Your task to perform on an android device: turn notification dots off Image 0: 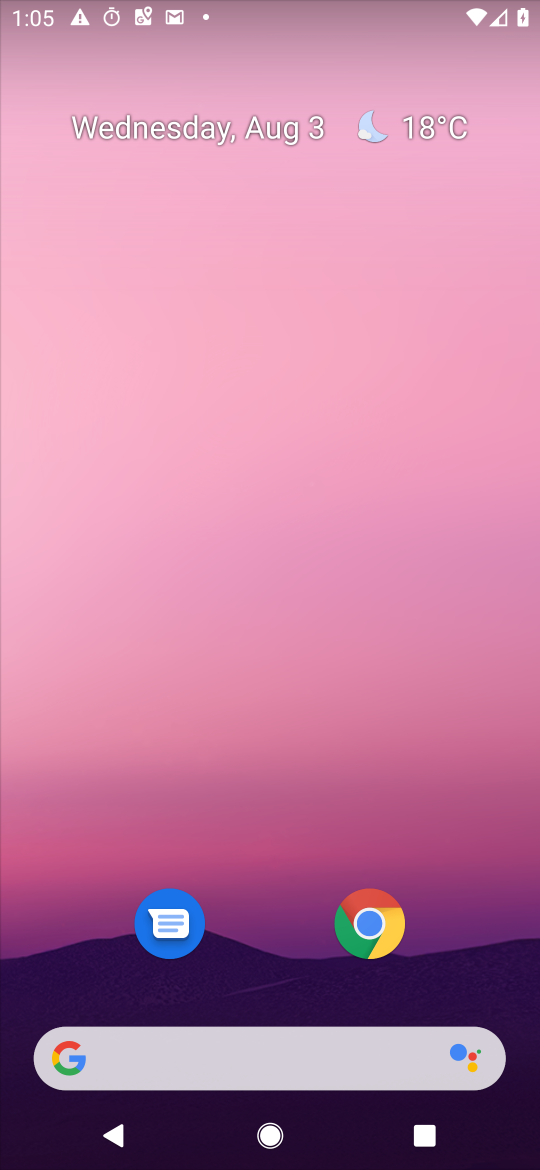
Step 0: drag from (335, 938) to (403, 414)
Your task to perform on an android device: turn notification dots off Image 1: 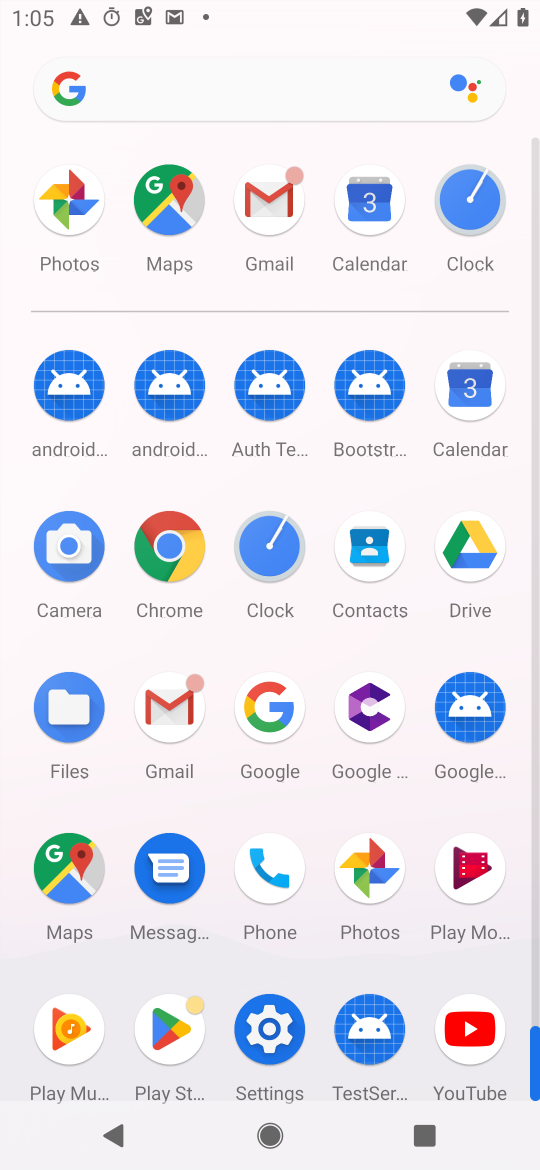
Step 1: drag from (332, 1012) to (279, 234)
Your task to perform on an android device: turn notification dots off Image 2: 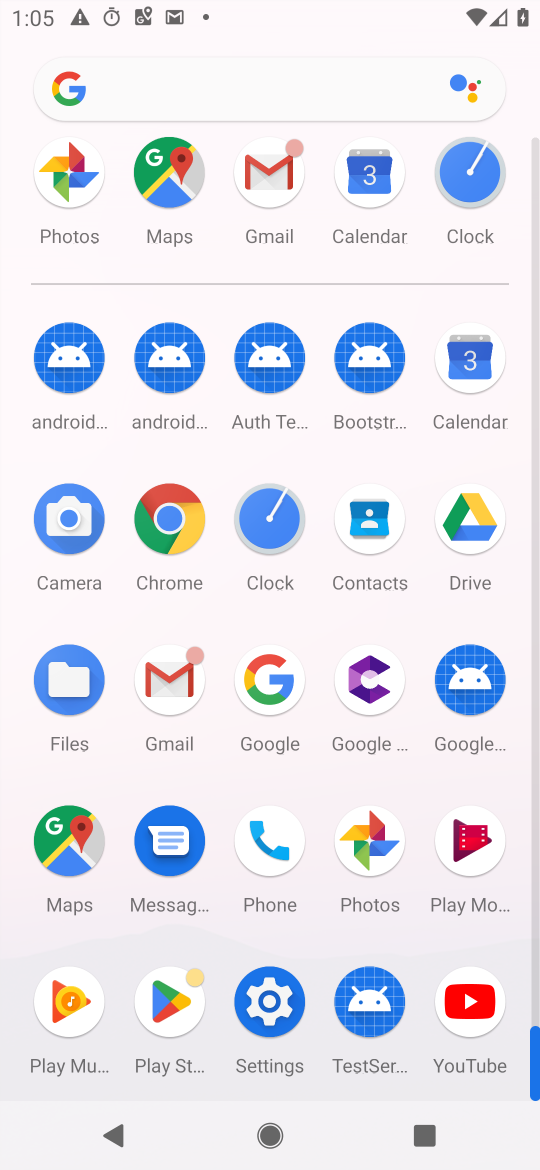
Step 2: drag from (305, 950) to (284, 317)
Your task to perform on an android device: turn notification dots off Image 3: 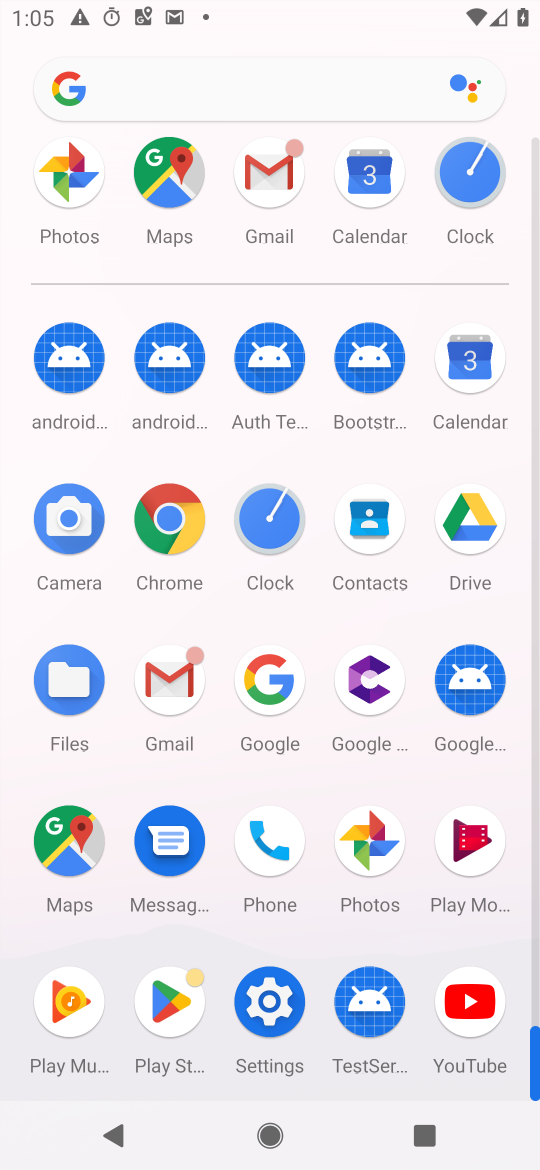
Step 3: drag from (331, 810) to (294, 429)
Your task to perform on an android device: turn notification dots off Image 4: 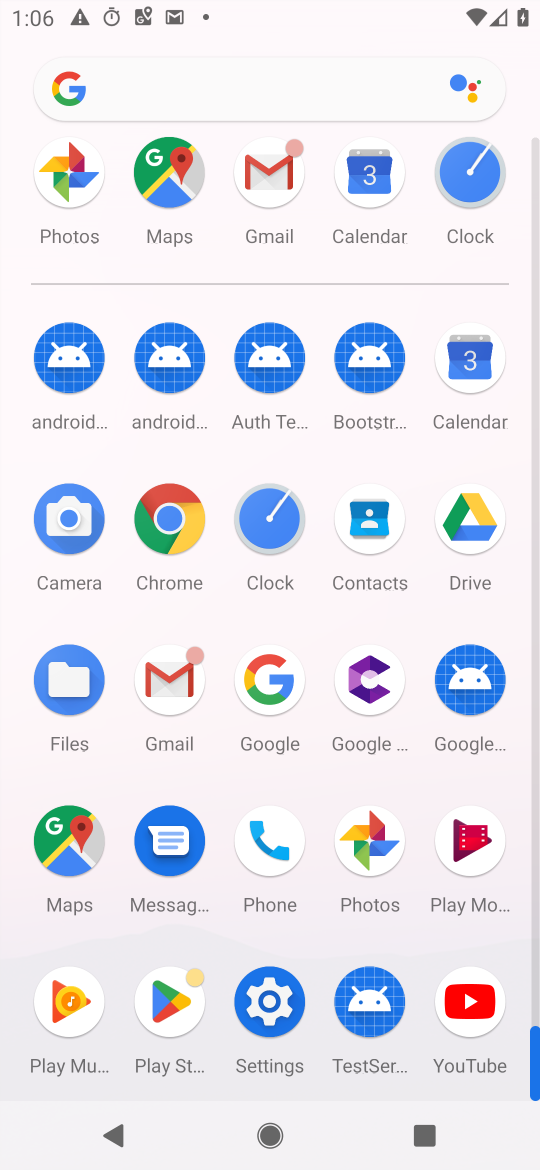
Step 4: click (277, 1011)
Your task to perform on an android device: turn notification dots off Image 5: 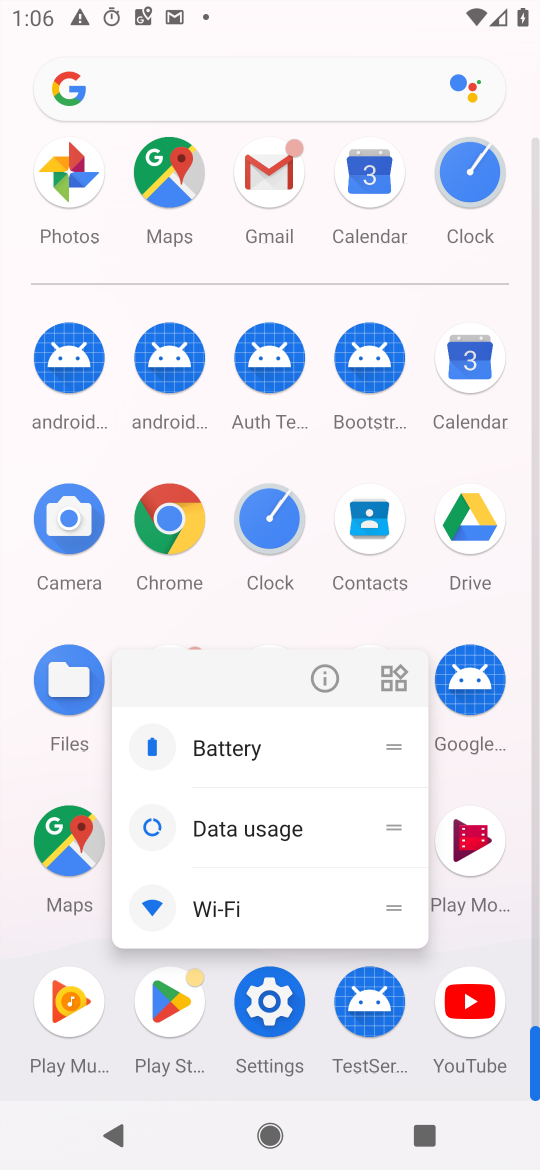
Step 5: click (313, 669)
Your task to perform on an android device: turn notification dots off Image 6: 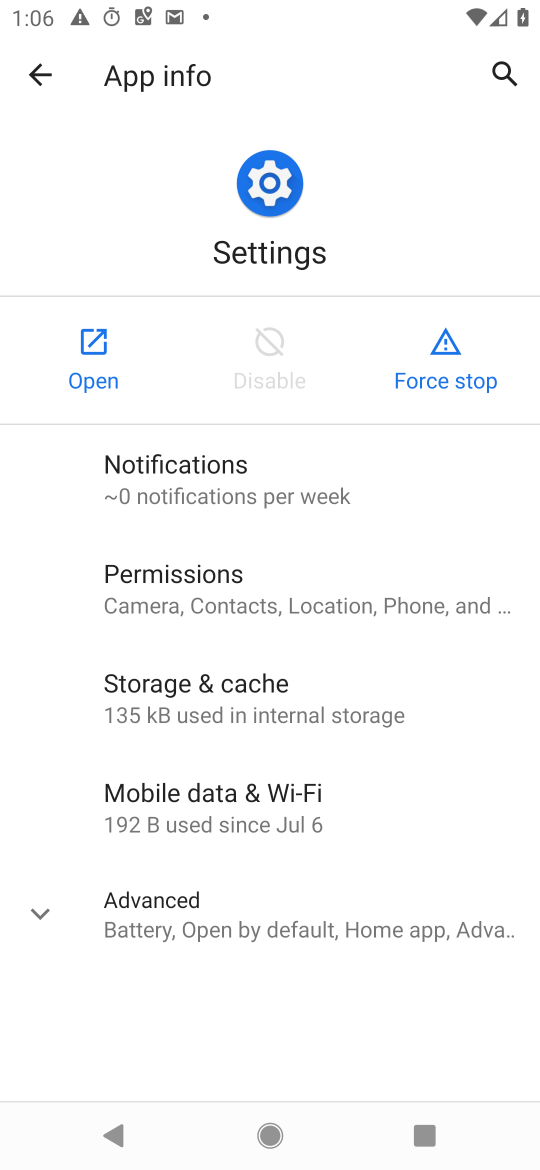
Step 6: click (97, 378)
Your task to perform on an android device: turn notification dots off Image 7: 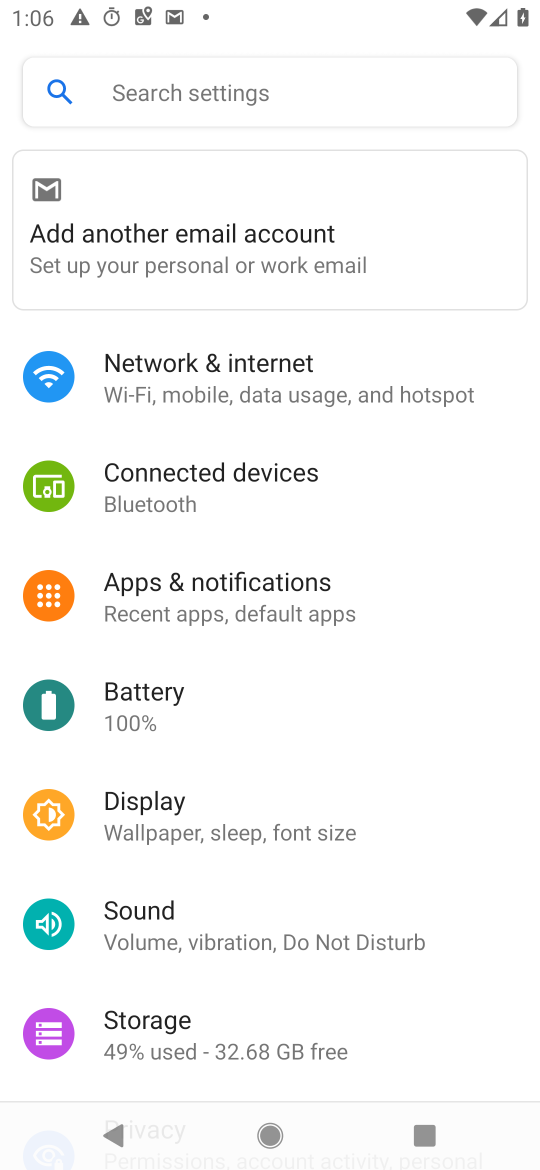
Step 7: drag from (274, 198) to (419, 121)
Your task to perform on an android device: turn notification dots off Image 8: 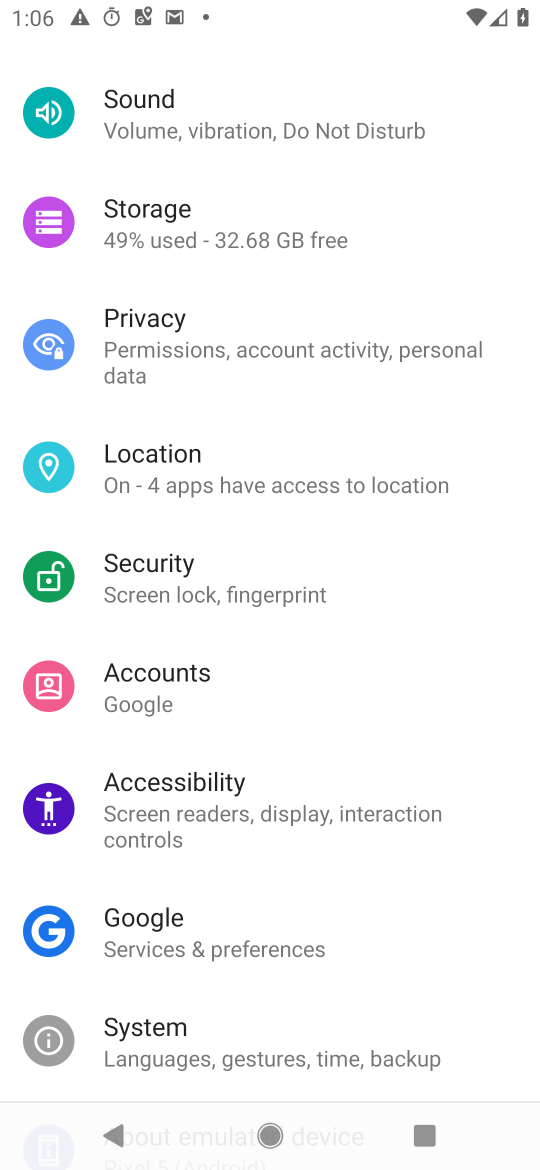
Step 8: drag from (317, 310) to (340, 1155)
Your task to perform on an android device: turn notification dots off Image 9: 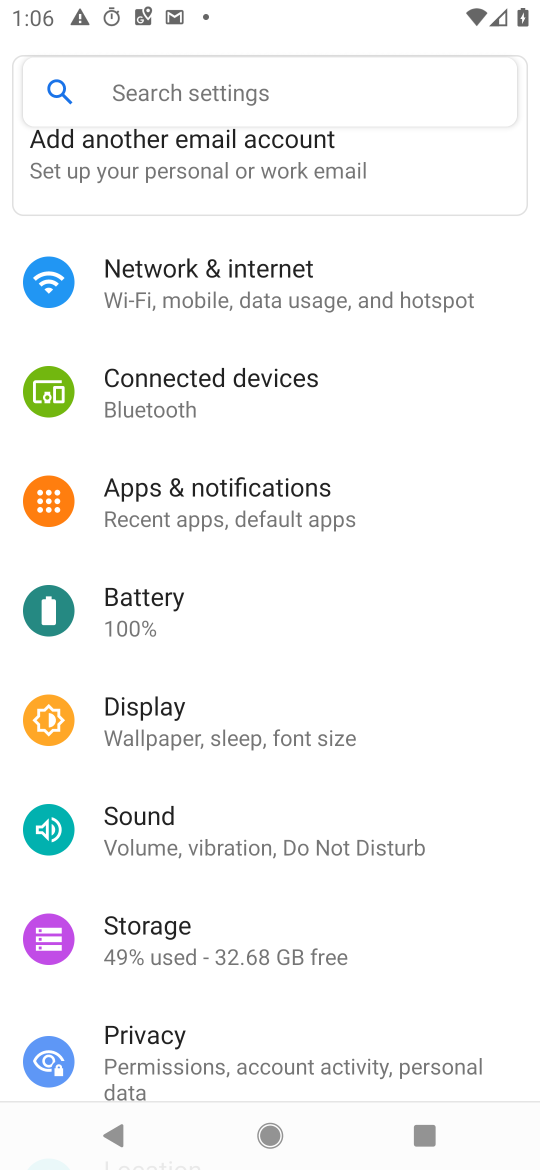
Step 9: click (290, 494)
Your task to perform on an android device: turn notification dots off Image 10: 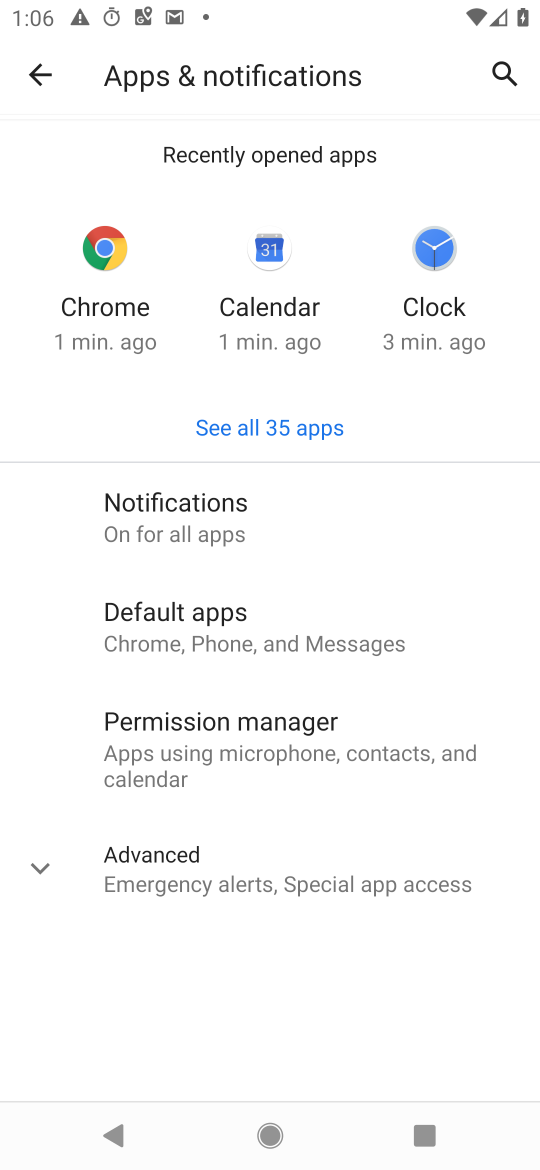
Step 10: drag from (305, 821) to (305, 530)
Your task to perform on an android device: turn notification dots off Image 11: 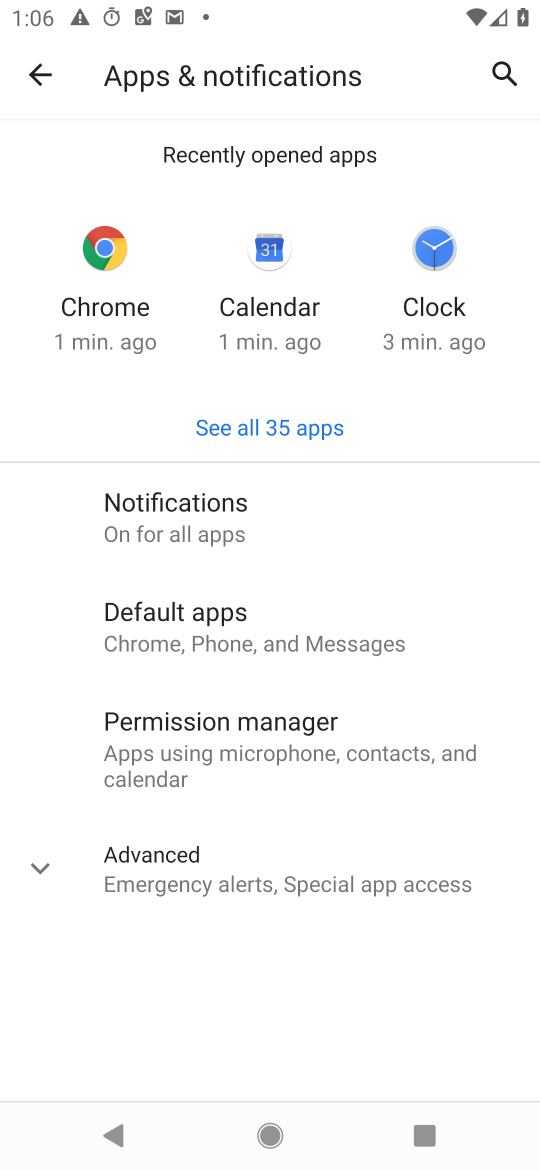
Step 11: click (222, 873)
Your task to perform on an android device: turn notification dots off Image 12: 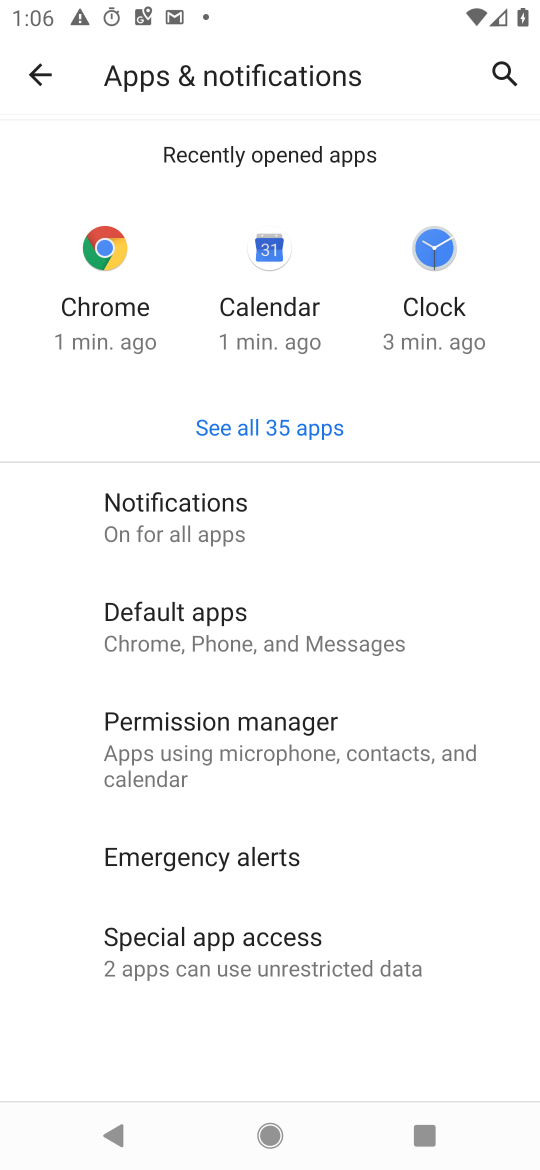
Step 12: drag from (278, 718) to (409, 1157)
Your task to perform on an android device: turn notification dots off Image 13: 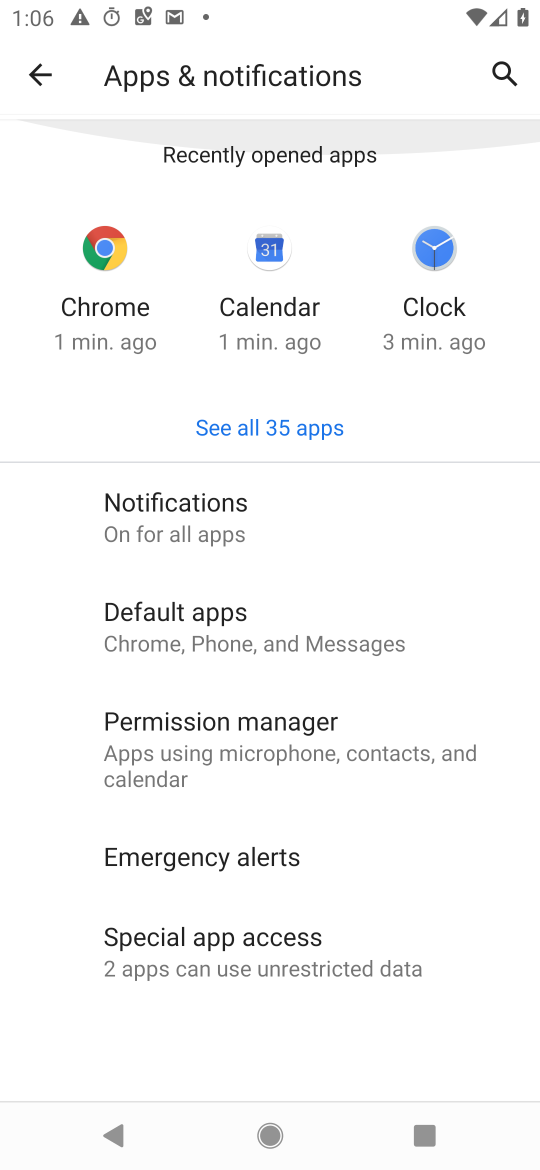
Step 13: click (282, 517)
Your task to perform on an android device: turn notification dots off Image 14: 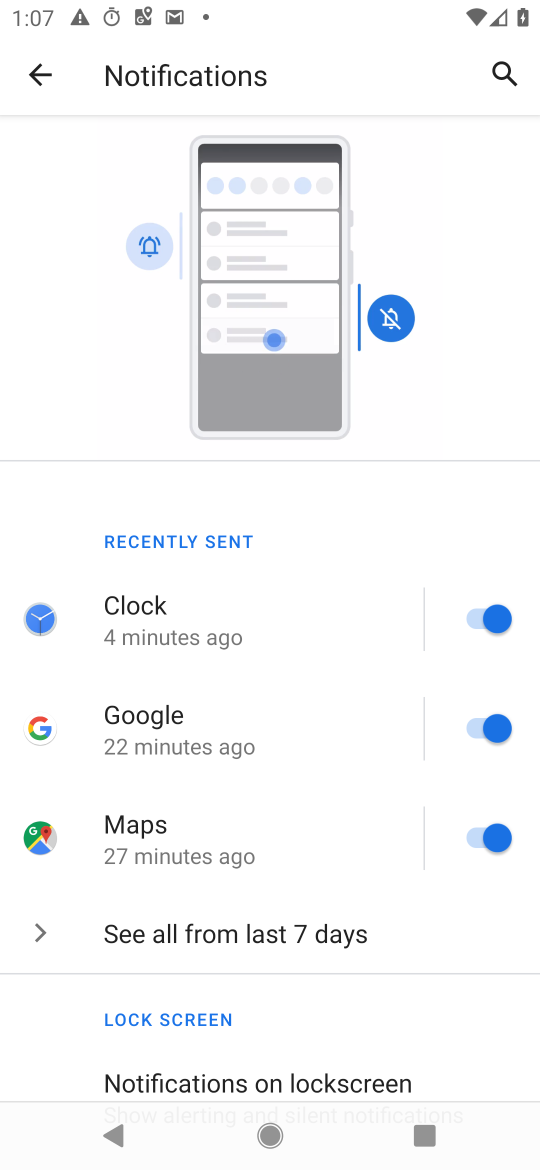
Step 14: drag from (351, 1051) to (258, 439)
Your task to perform on an android device: turn notification dots off Image 15: 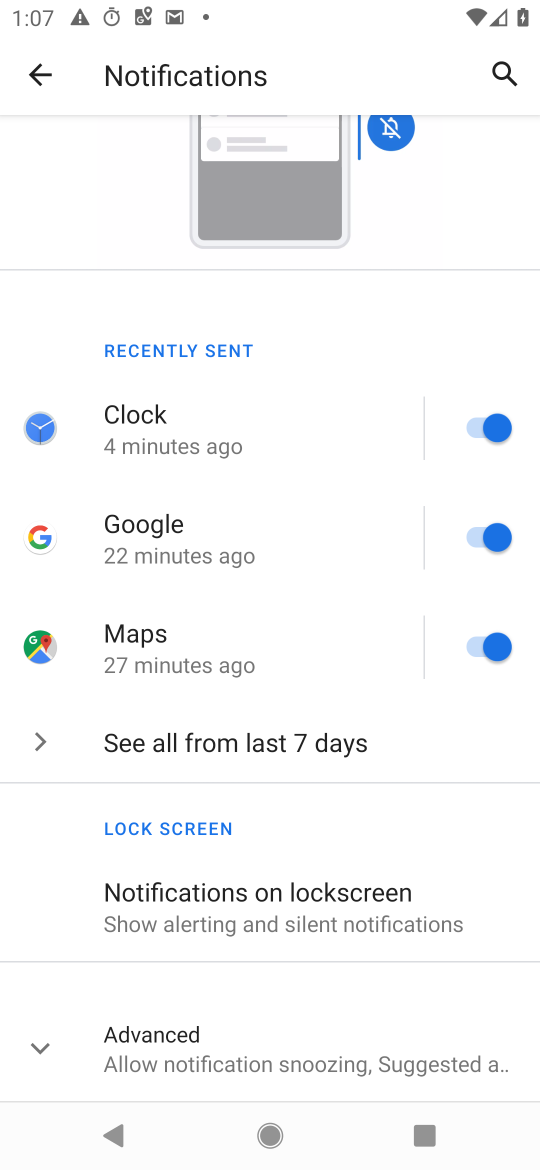
Step 15: drag from (261, 1024) to (169, 261)
Your task to perform on an android device: turn notification dots off Image 16: 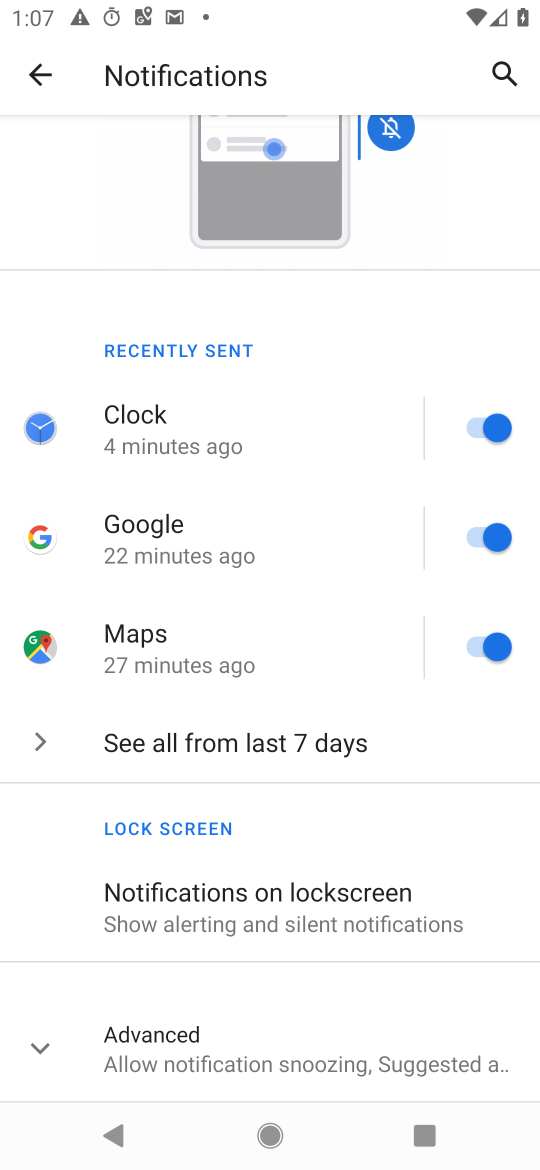
Step 16: drag from (249, 982) to (200, 413)
Your task to perform on an android device: turn notification dots off Image 17: 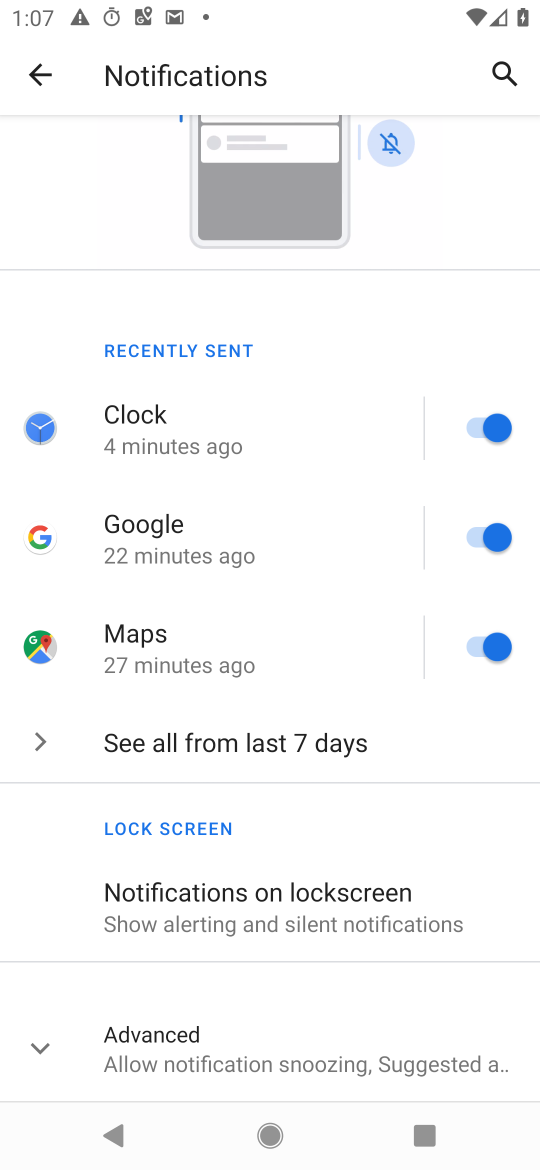
Step 17: click (181, 1047)
Your task to perform on an android device: turn notification dots off Image 18: 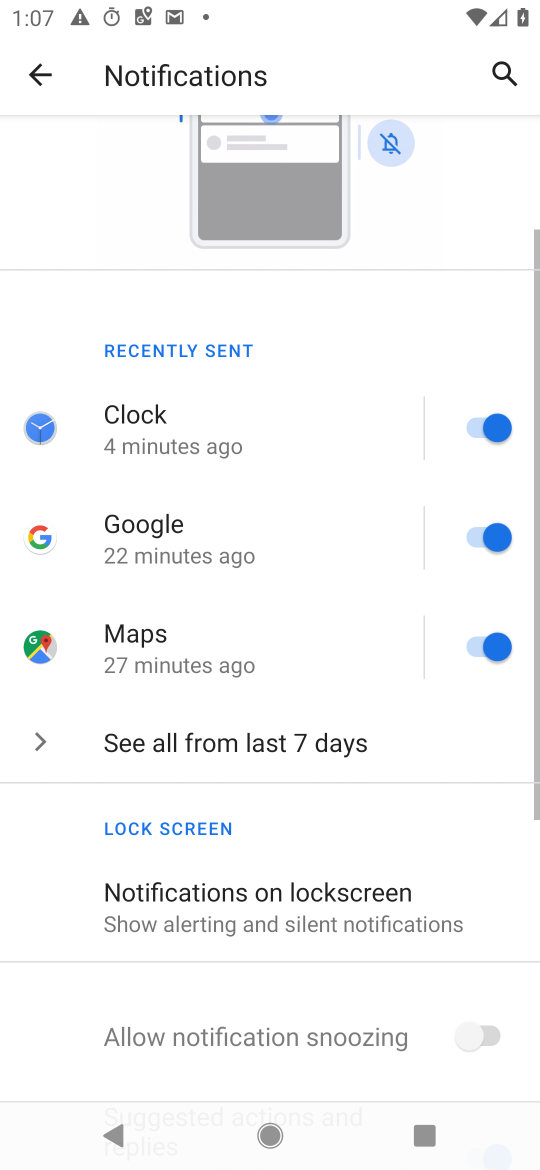
Step 18: drag from (209, 996) to (198, 237)
Your task to perform on an android device: turn notification dots off Image 19: 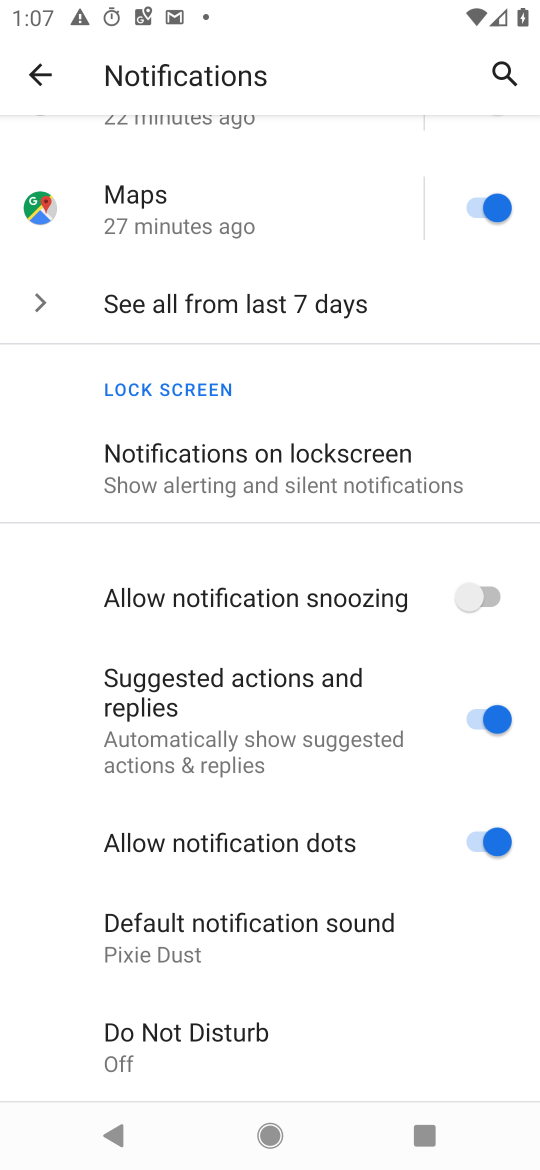
Step 19: drag from (396, 978) to (409, 162)
Your task to perform on an android device: turn notification dots off Image 20: 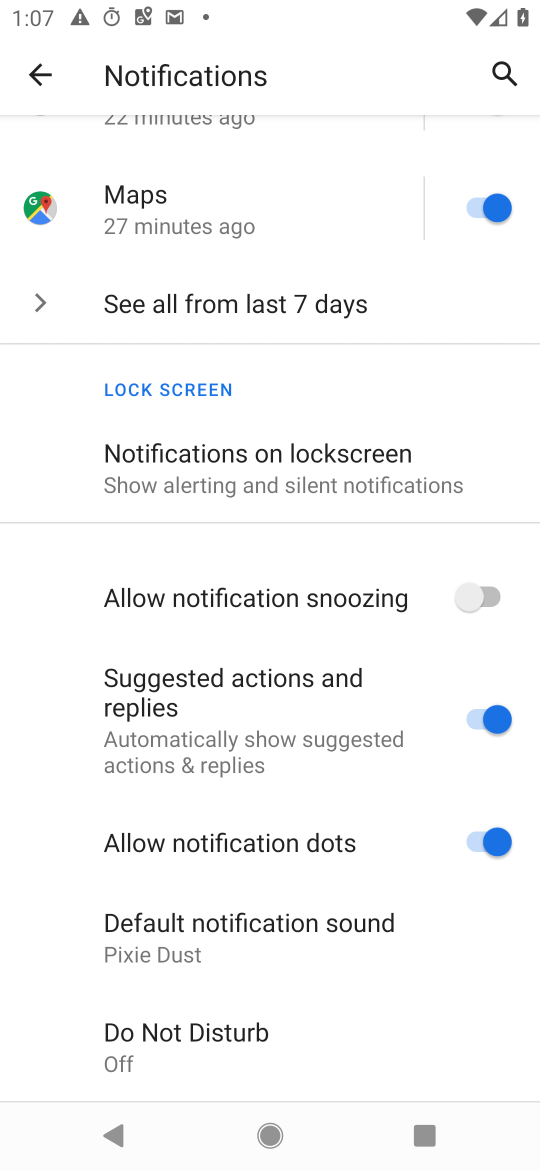
Step 20: click (484, 836)
Your task to perform on an android device: turn notification dots off Image 21: 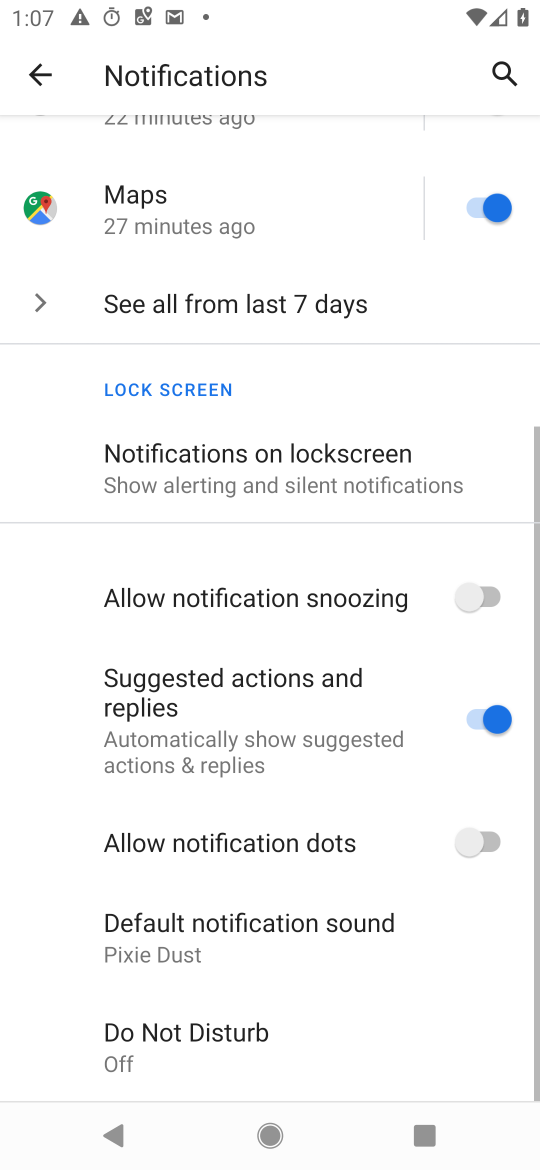
Step 21: task complete